Your task to perform on an android device: Open Amazon Image 0: 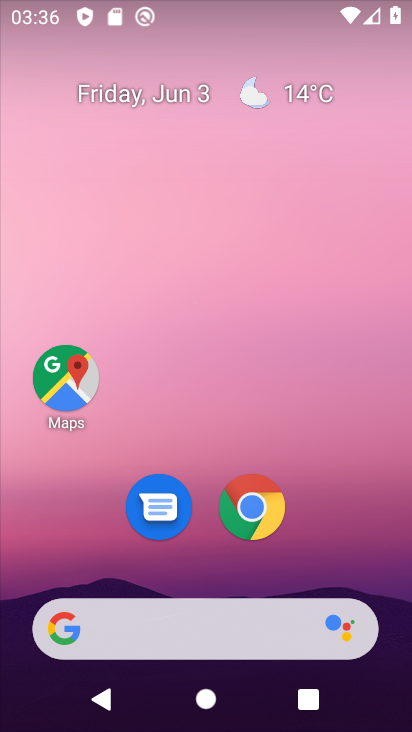
Step 0: press home button
Your task to perform on an android device: Open Amazon Image 1: 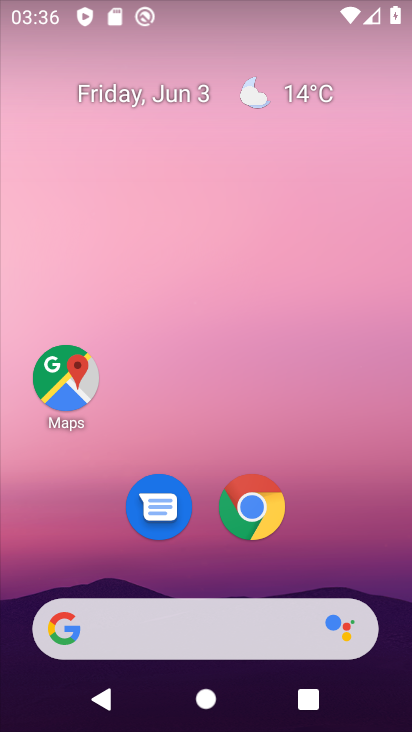
Step 1: click (57, 625)
Your task to perform on an android device: Open Amazon Image 2: 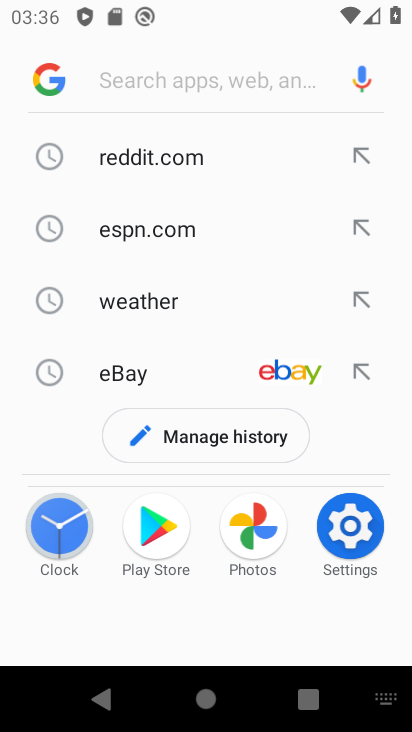
Step 2: type "Amazon"
Your task to perform on an android device: Open Amazon Image 3: 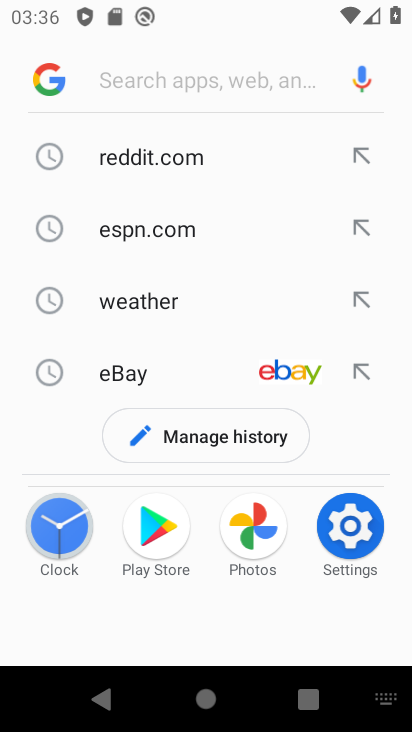
Step 3: click (192, 75)
Your task to perform on an android device: Open Amazon Image 4: 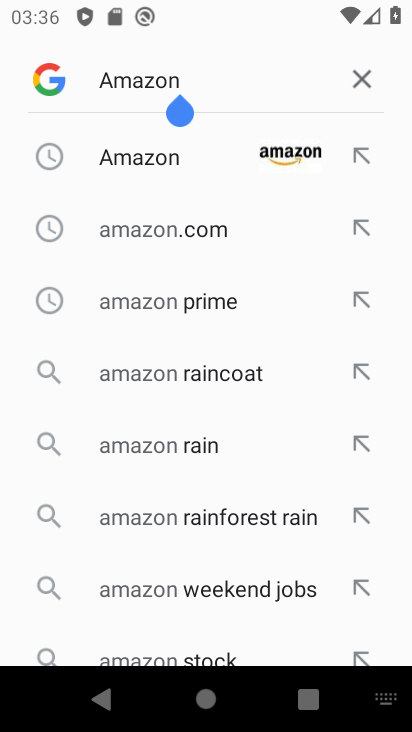
Step 4: click (148, 167)
Your task to perform on an android device: Open Amazon Image 5: 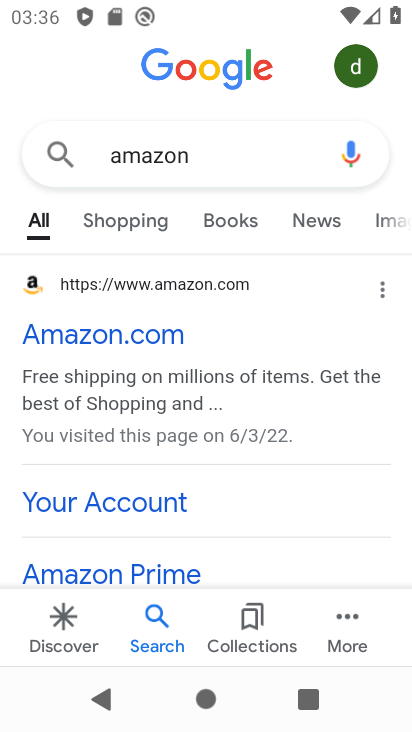
Step 5: click (124, 342)
Your task to perform on an android device: Open Amazon Image 6: 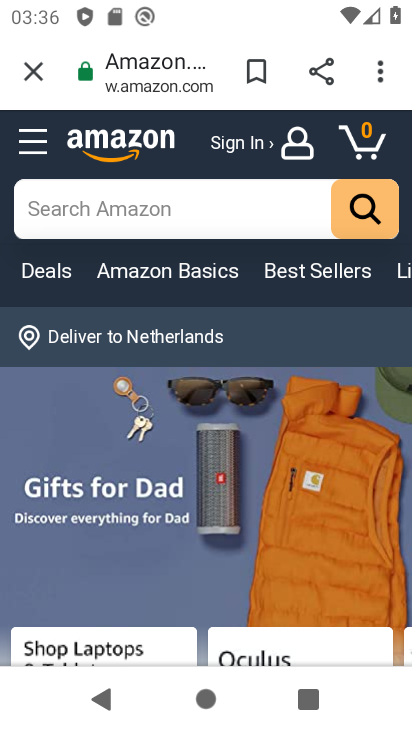
Step 6: task complete